Your task to perform on an android device: Go to battery settings Image 0: 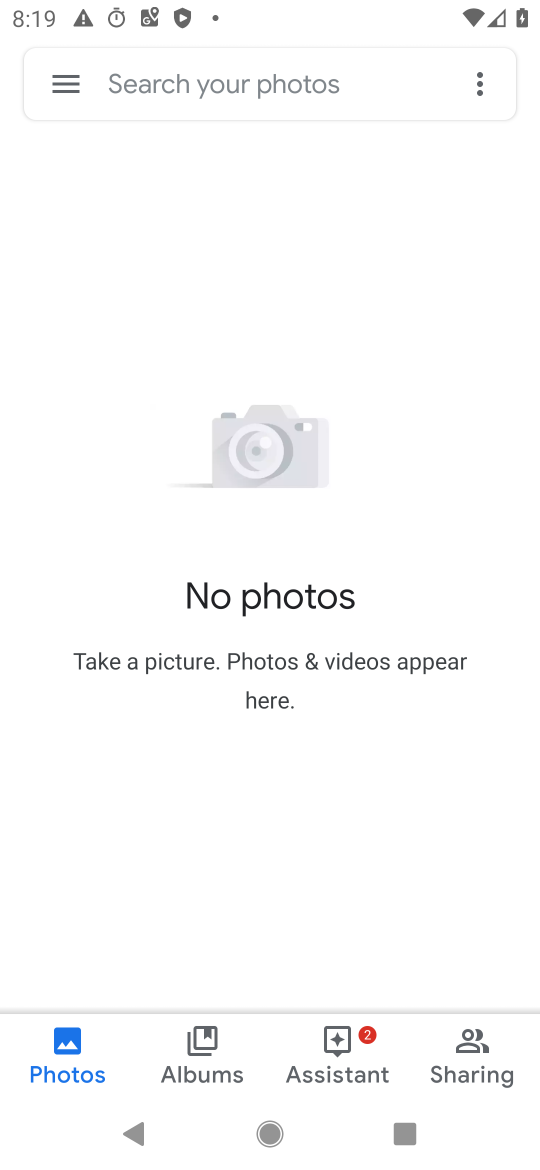
Step 0: press home button
Your task to perform on an android device: Go to battery settings Image 1: 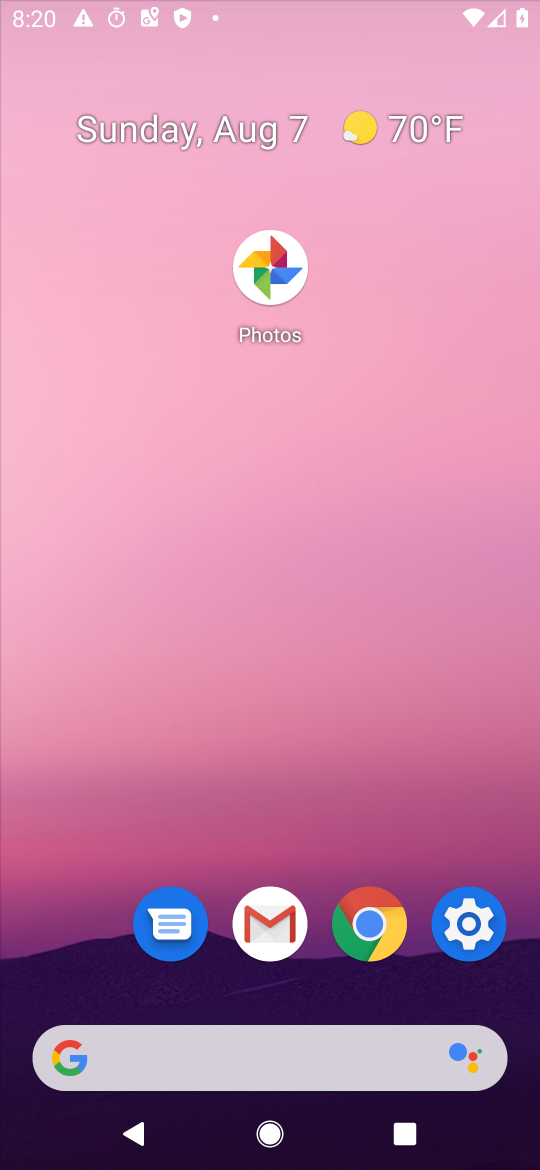
Step 1: drag from (336, 1088) to (378, 0)
Your task to perform on an android device: Go to battery settings Image 2: 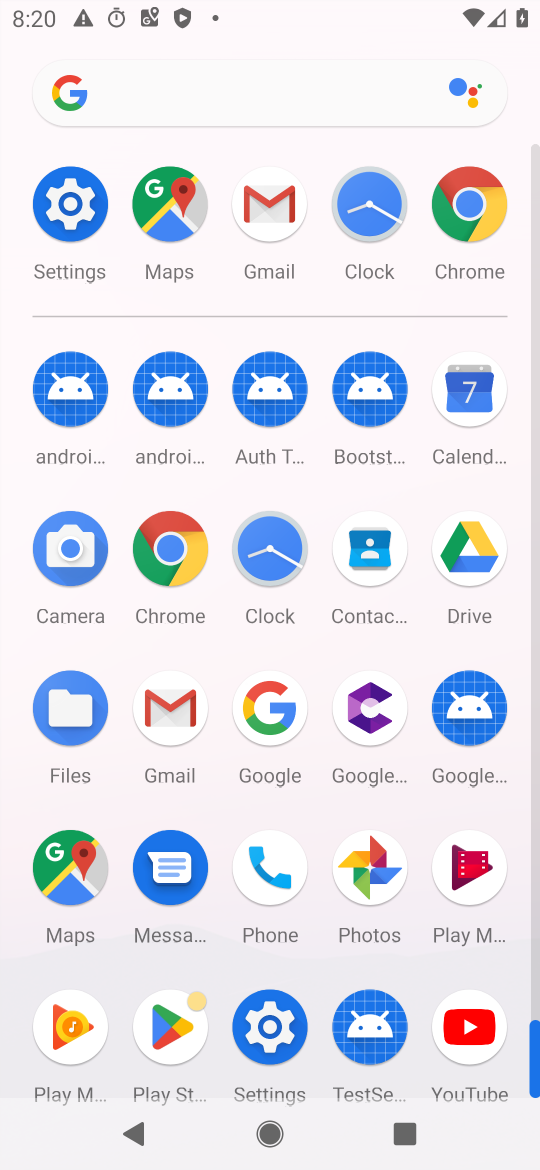
Step 2: click (66, 195)
Your task to perform on an android device: Go to battery settings Image 3: 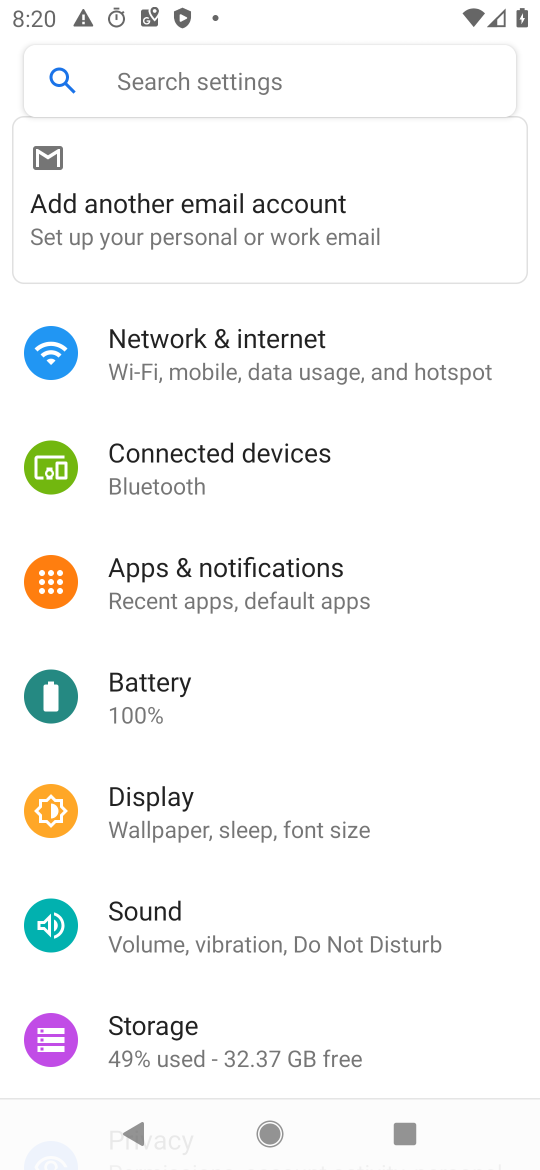
Step 3: click (154, 722)
Your task to perform on an android device: Go to battery settings Image 4: 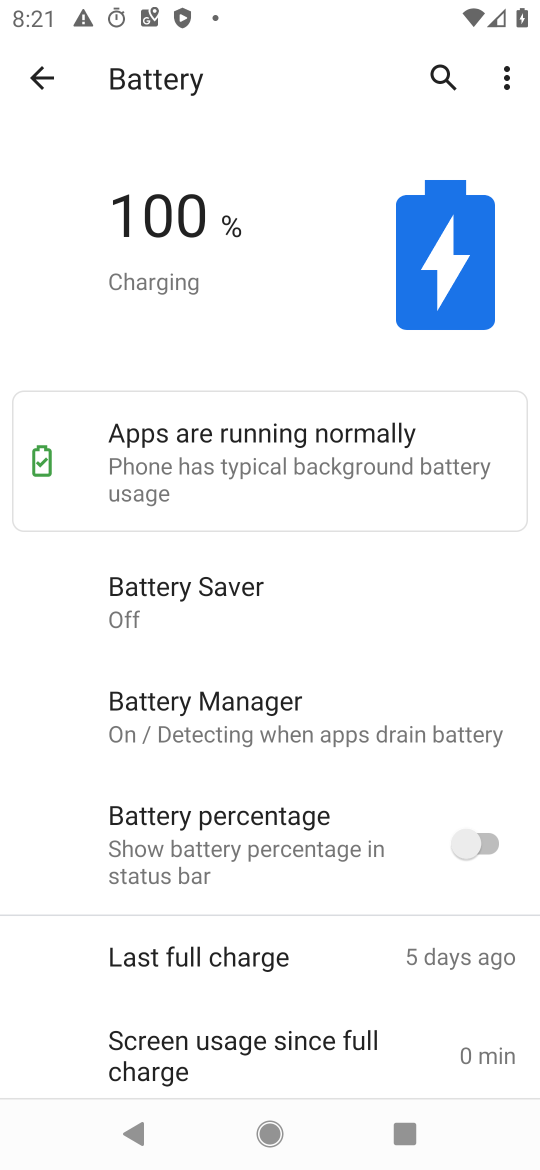
Step 4: task complete